Your task to perform on an android device: Search for vegetarian restaurants on Maps Image 0: 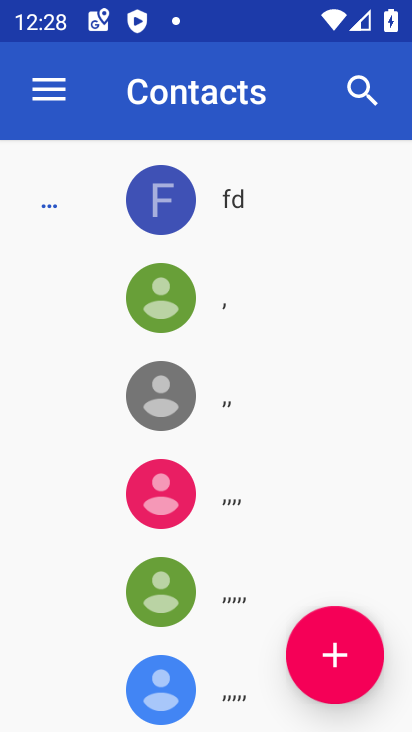
Step 0: press back button
Your task to perform on an android device: Search for vegetarian restaurants on Maps Image 1: 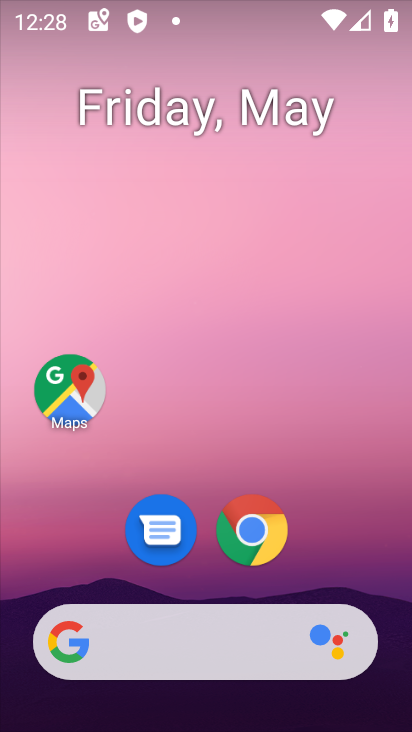
Step 1: click (69, 393)
Your task to perform on an android device: Search for vegetarian restaurants on Maps Image 2: 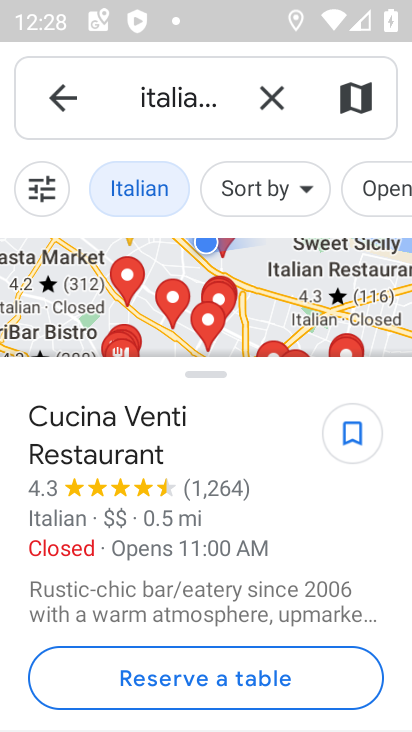
Step 2: click (270, 97)
Your task to perform on an android device: Search for vegetarian restaurants on Maps Image 3: 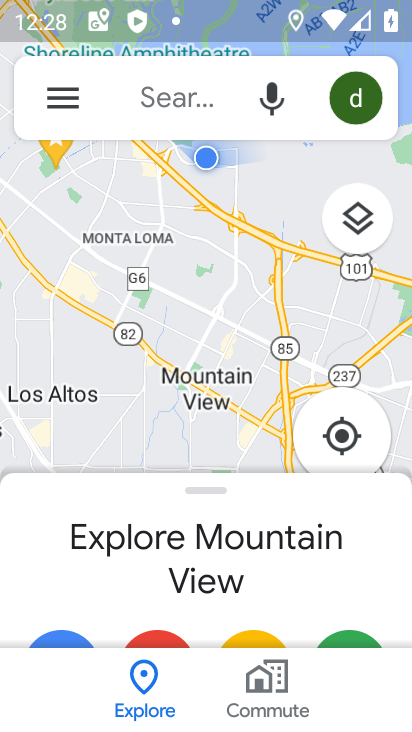
Step 3: click (188, 99)
Your task to perform on an android device: Search for vegetarian restaurants on Maps Image 4: 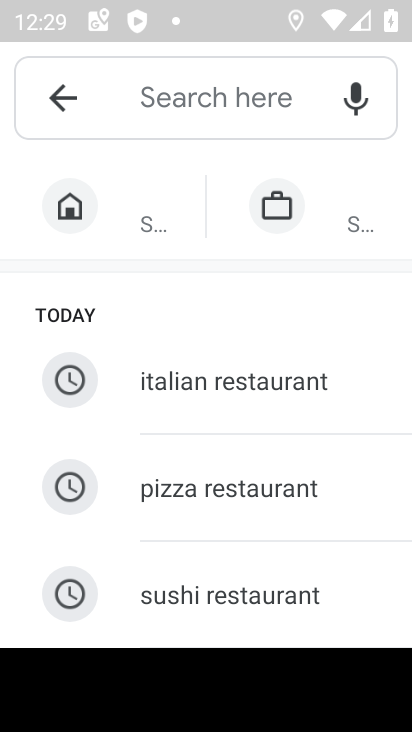
Step 4: type "vegetarian restaurants"
Your task to perform on an android device: Search for vegetarian restaurants on Maps Image 5: 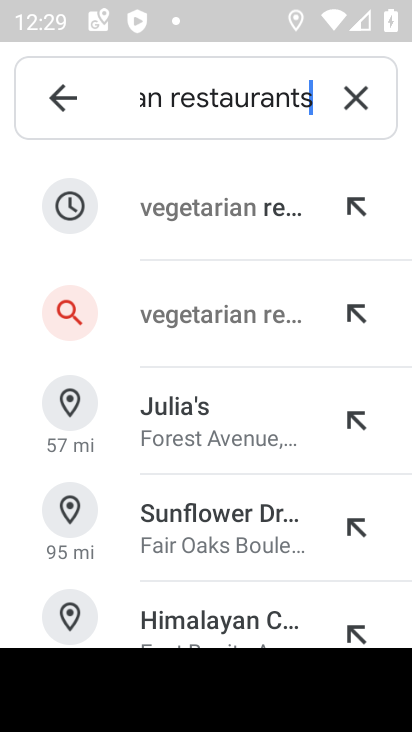
Step 5: click (238, 214)
Your task to perform on an android device: Search for vegetarian restaurants on Maps Image 6: 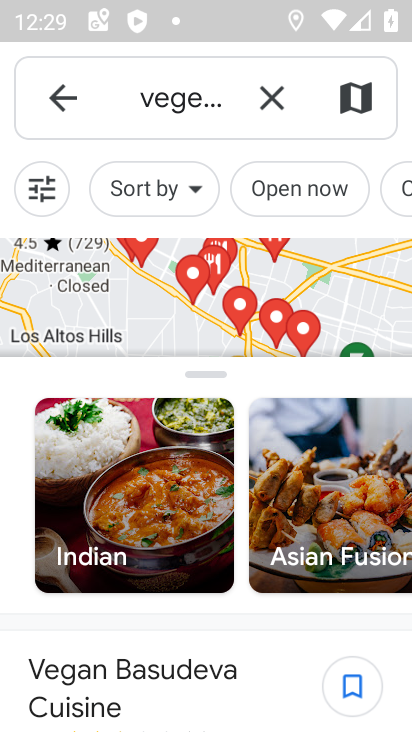
Step 6: task complete